Your task to perform on an android device: Open Google Chrome Image 0: 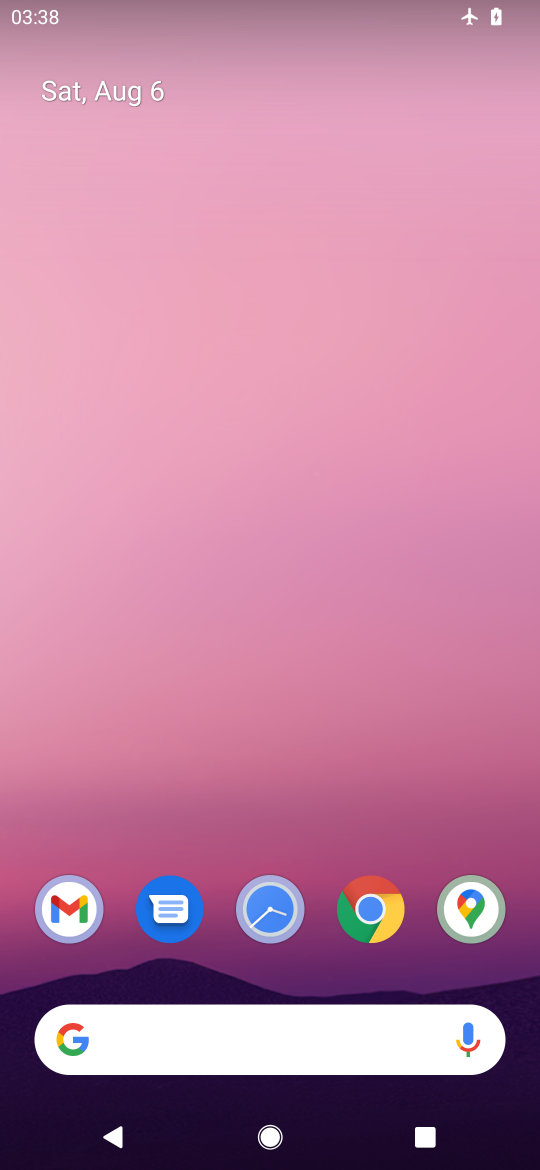
Step 0: click (392, 914)
Your task to perform on an android device: Open Google Chrome Image 1: 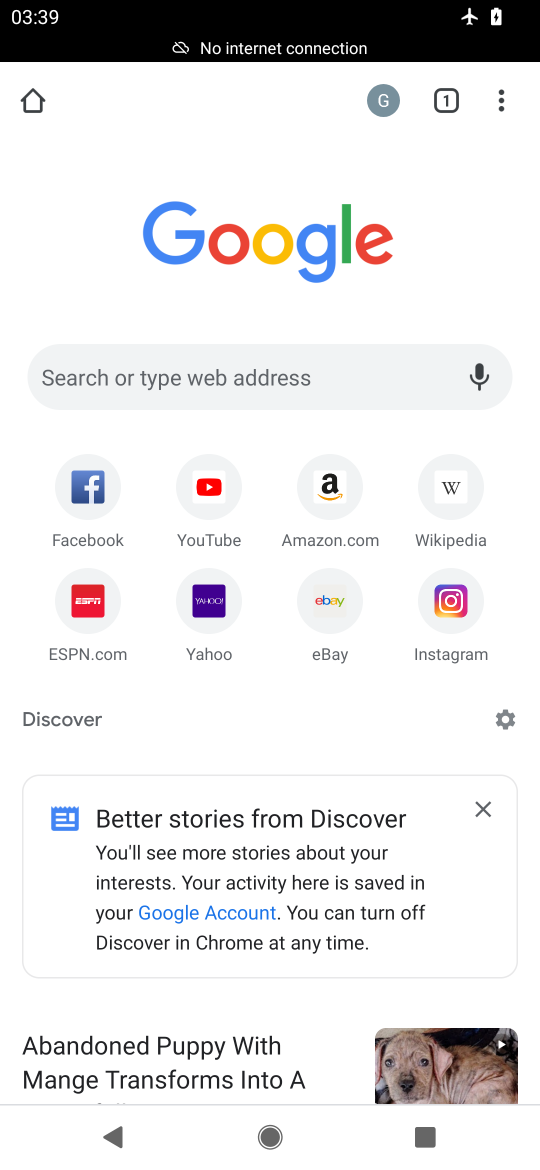
Step 1: task complete